Your task to perform on an android device: Go to notification settings Image 0: 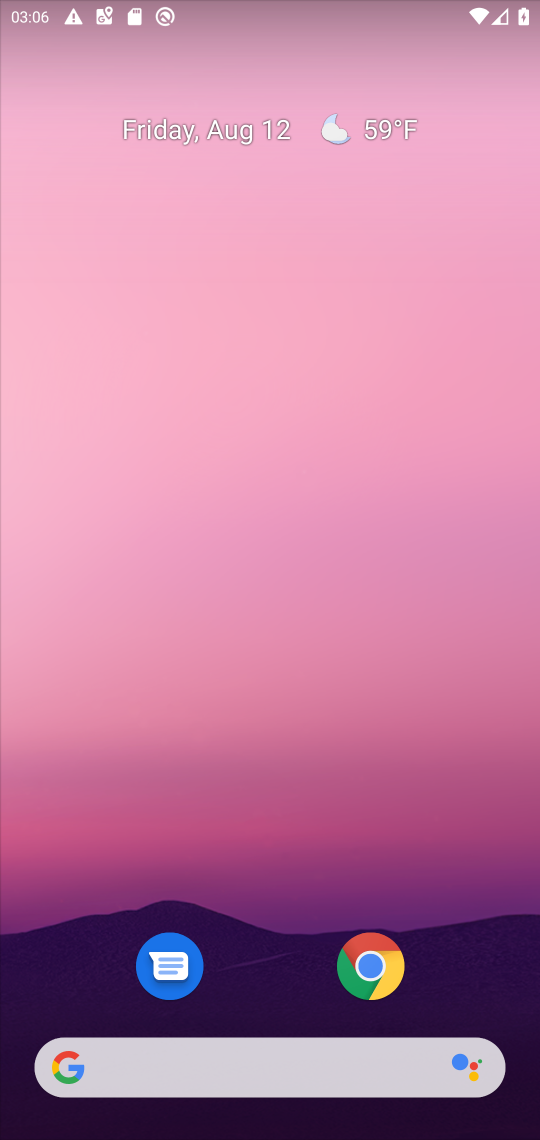
Step 0: drag from (403, 385) to (483, 27)
Your task to perform on an android device: Go to notification settings Image 1: 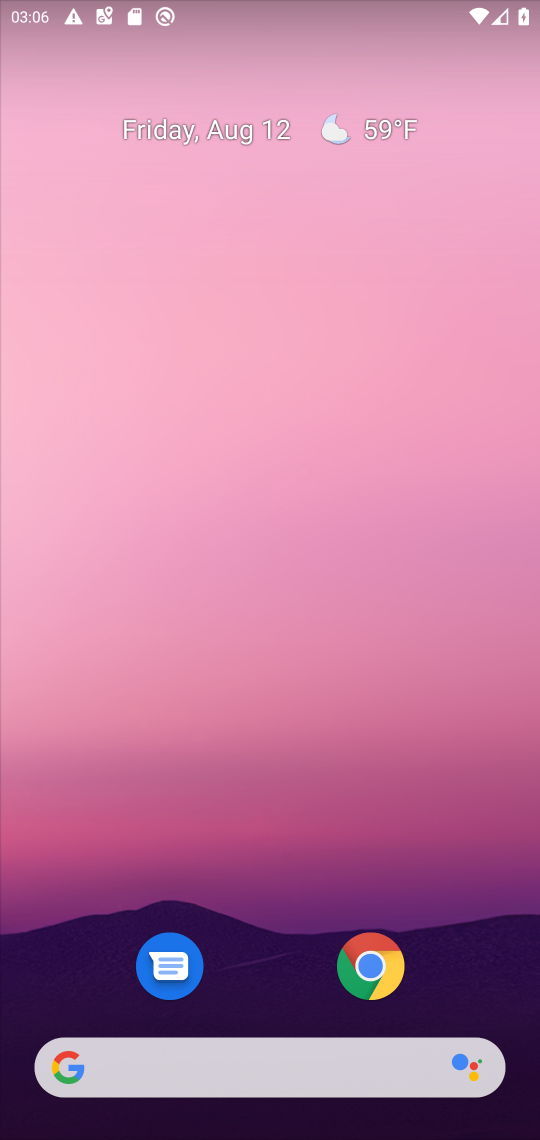
Step 1: drag from (251, 901) to (274, 220)
Your task to perform on an android device: Go to notification settings Image 2: 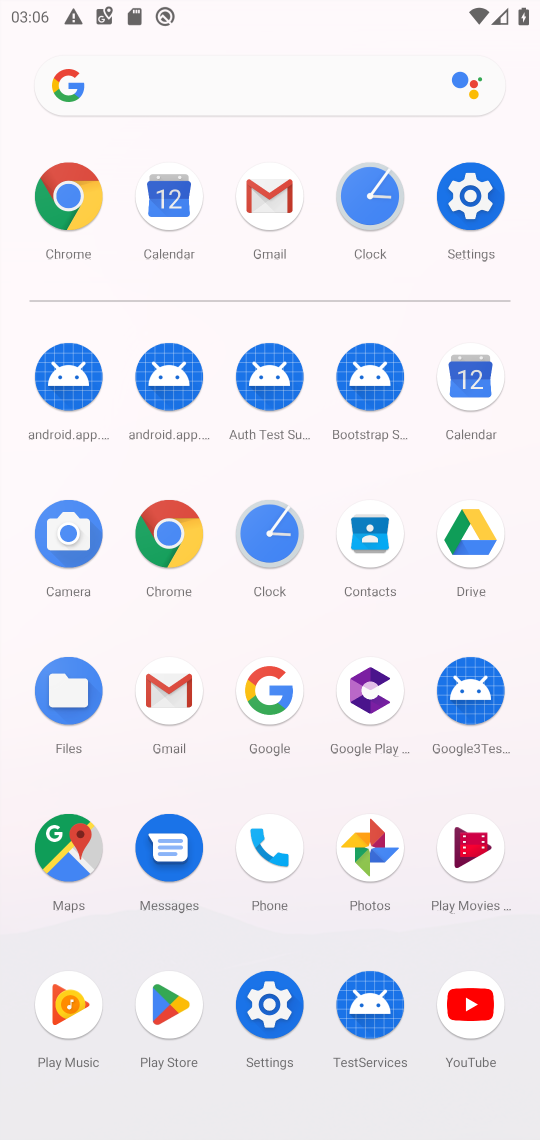
Step 2: click (272, 1013)
Your task to perform on an android device: Go to notification settings Image 3: 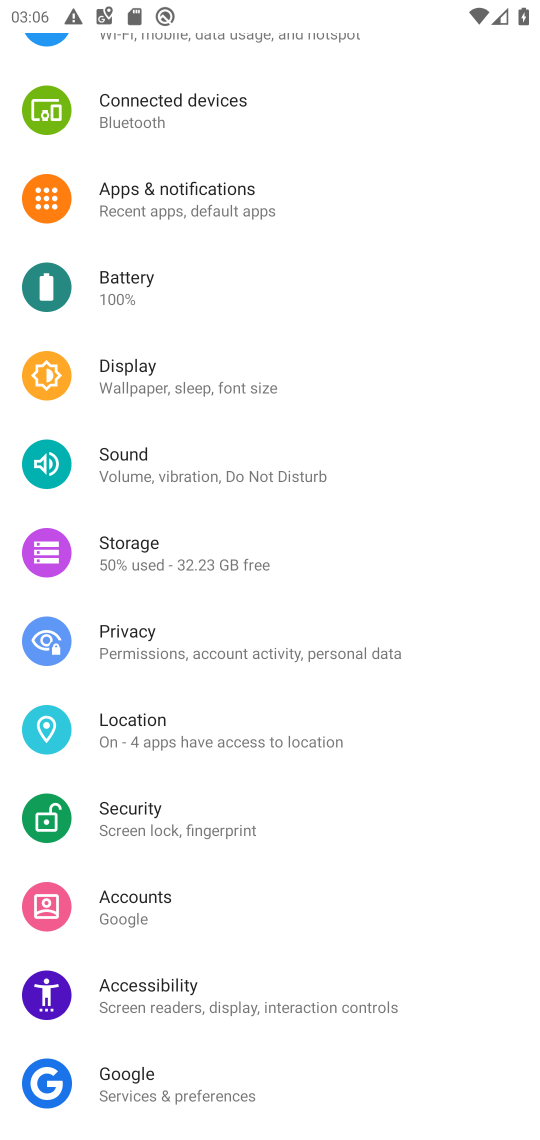
Step 3: click (226, 186)
Your task to perform on an android device: Go to notification settings Image 4: 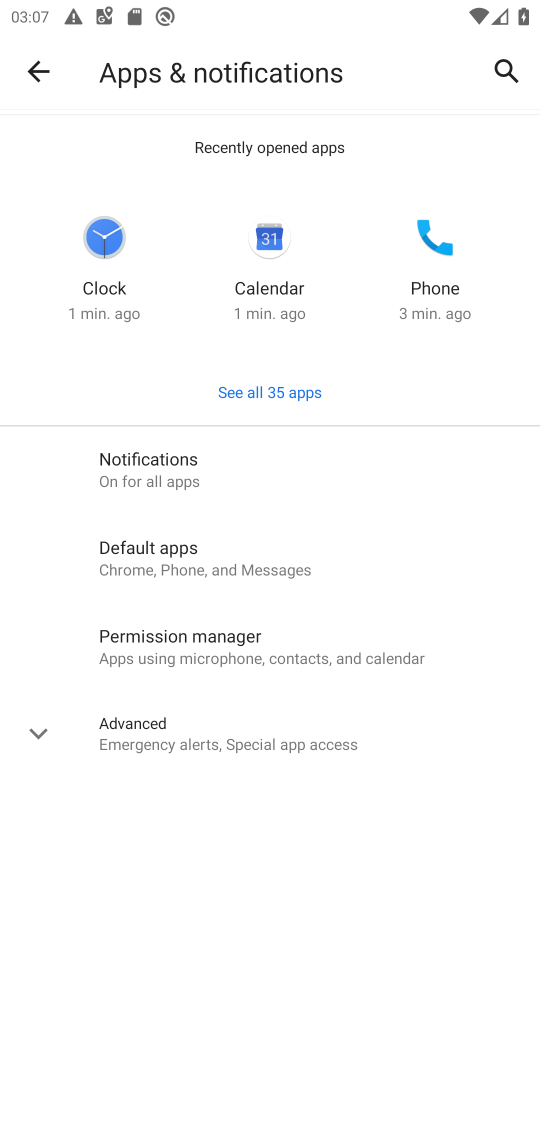
Step 4: click (111, 481)
Your task to perform on an android device: Go to notification settings Image 5: 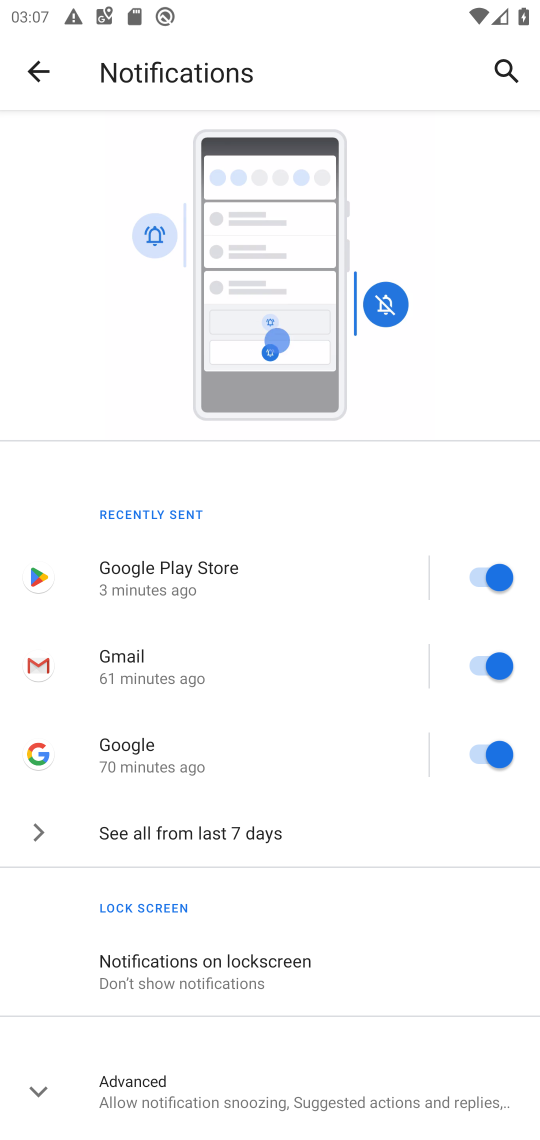
Step 5: task complete